Your task to perform on an android device: What's the weather today? Image 0: 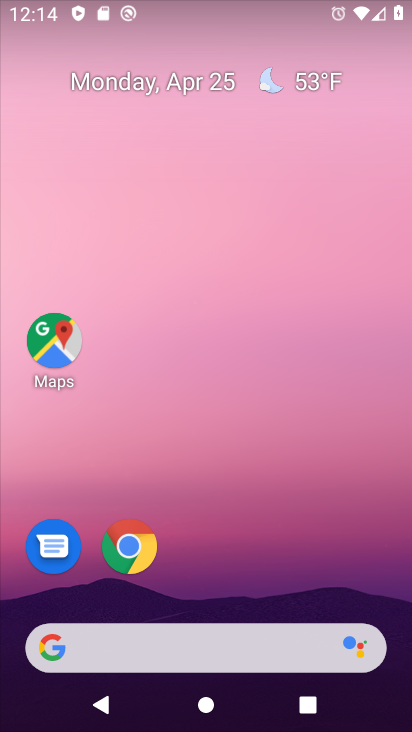
Step 0: drag from (220, 446) to (259, 144)
Your task to perform on an android device: What's the weather today? Image 1: 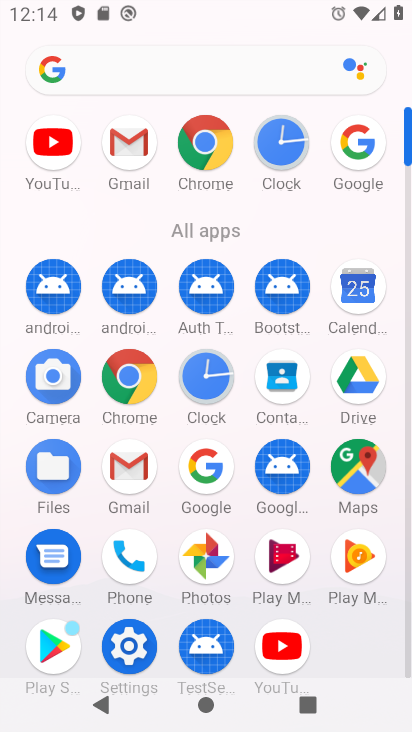
Step 1: click (196, 468)
Your task to perform on an android device: What's the weather today? Image 2: 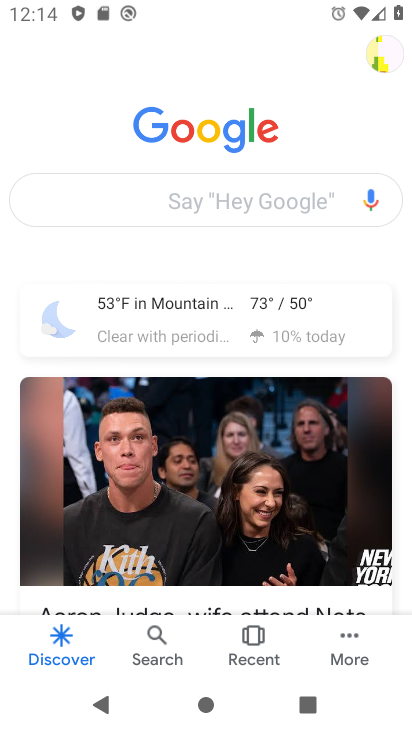
Step 2: click (139, 299)
Your task to perform on an android device: What's the weather today? Image 3: 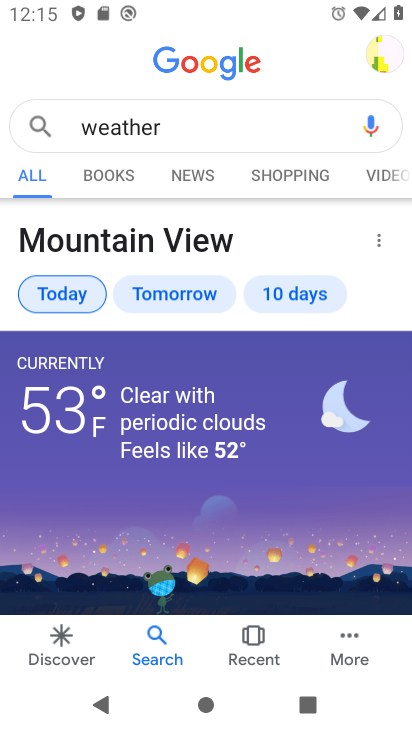
Step 3: task complete